Your task to perform on an android device: Go to battery settings Image 0: 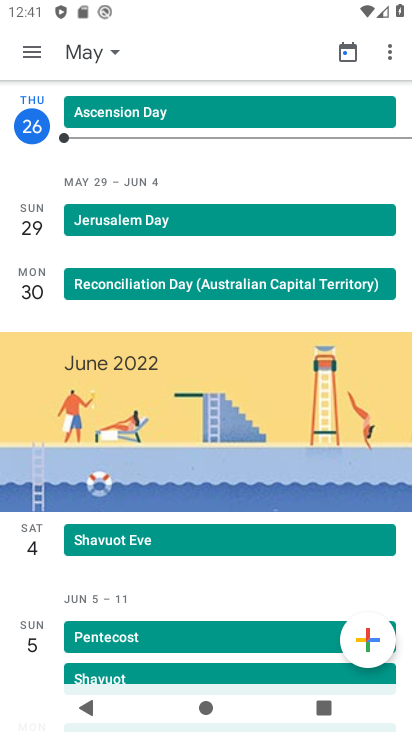
Step 0: press home button
Your task to perform on an android device: Go to battery settings Image 1: 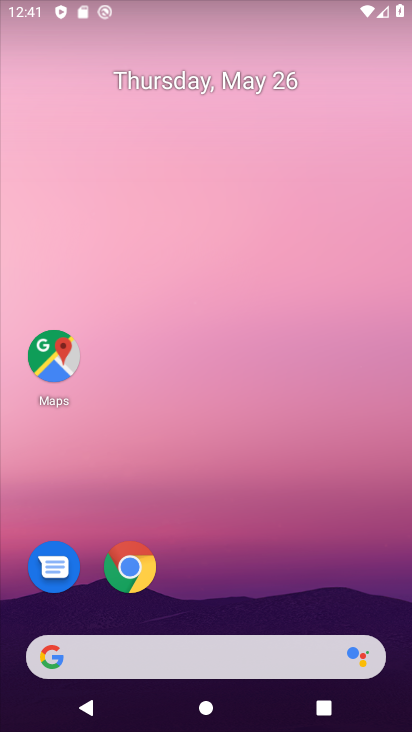
Step 1: drag from (230, 572) to (240, 89)
Your task to perform on an android device: Go to battery settings Image 2: 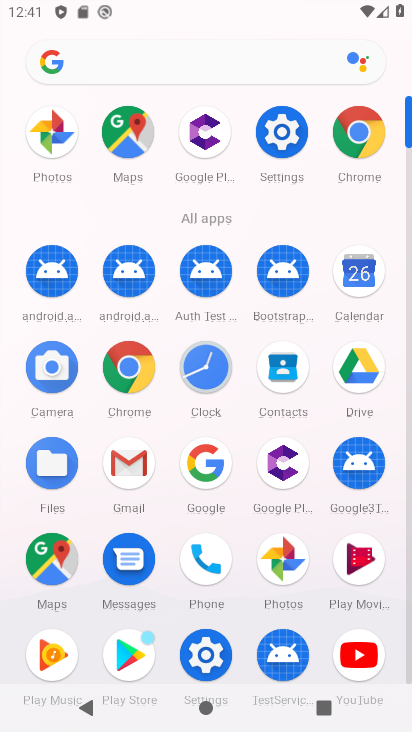
Step 2: click (285, 133)
Your task to perform on an android device: Go to battery settings Image 3: 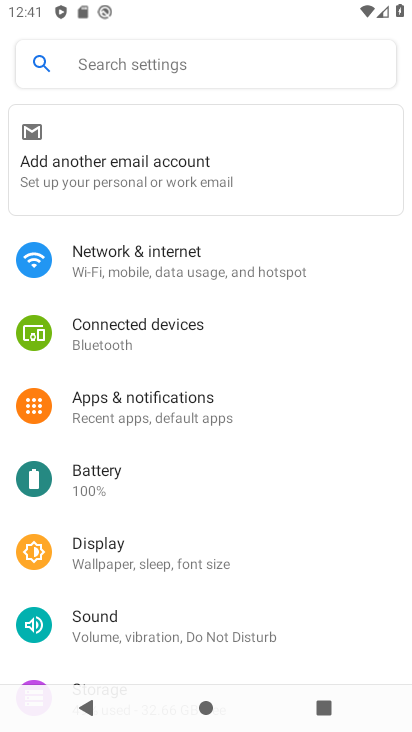
Step 3: click (136, 485)
Your task to perform on an android device: Go to battery settings Image 4: 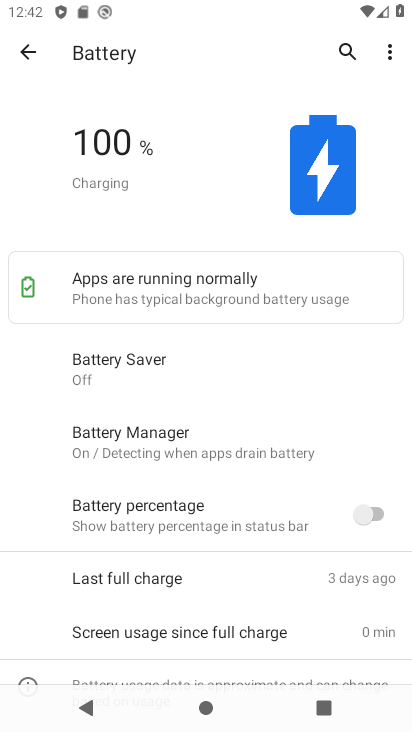
Step 4: task complete